Your task to perform on an android device: Show me popular videos on Youtube Image 0: 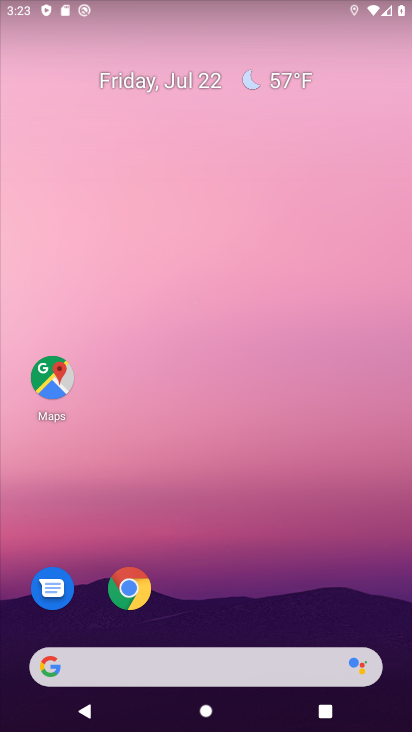
Step 0: drag from (258, 641) to (178, 40)
Your task to perform on an android device: Show me popular videos on Youtube Image 1: 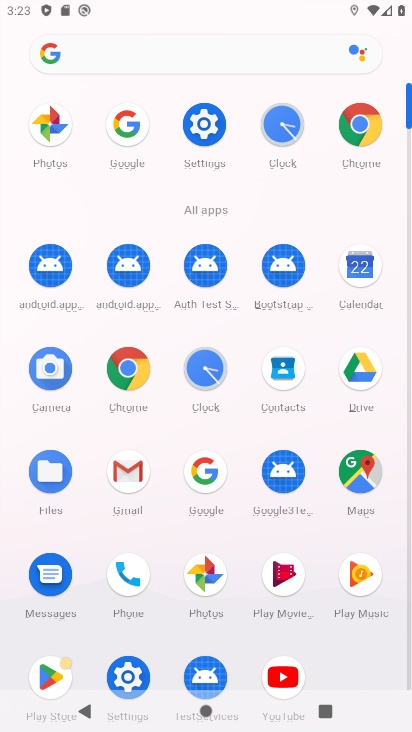
Step 1: click (258, 674)
Your task to perform on an android device: Show me popular videos on Youtube Image 2: 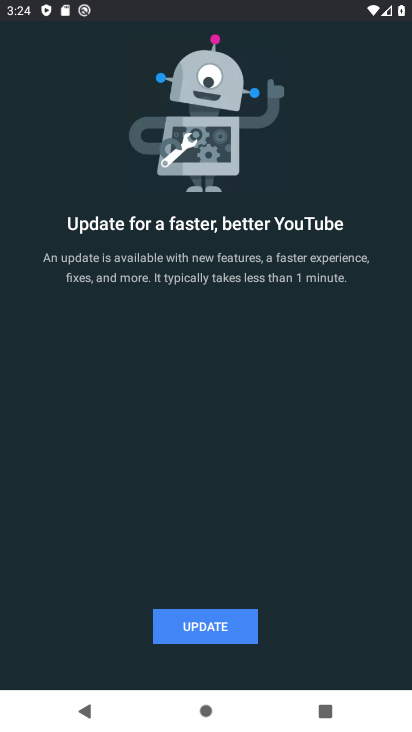
Step 2: click (217, 621)
Your task to perform on an android device: Show me popular videos on Youtube Image 3: 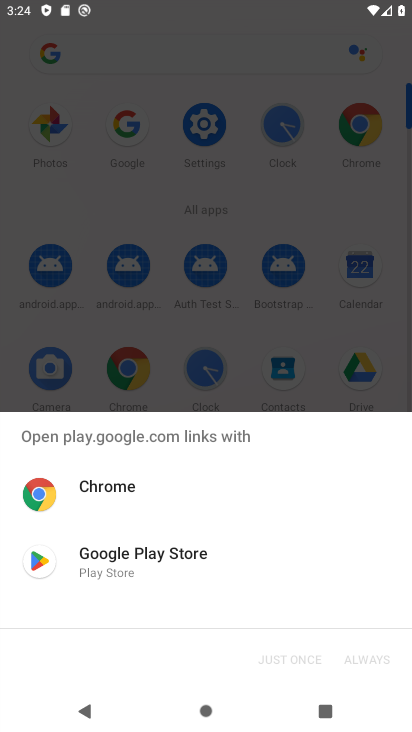
Step 3: click (192, 575)
Your task to perform on an android device: Show me popular videos on Youtube Image 4: 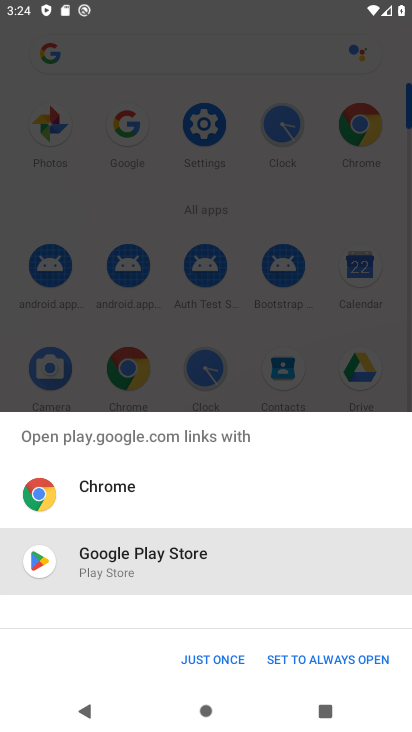
Step 4: click (214, 660)
Your task to perform on an android device: Show me popular videos on Youtube Image 5: 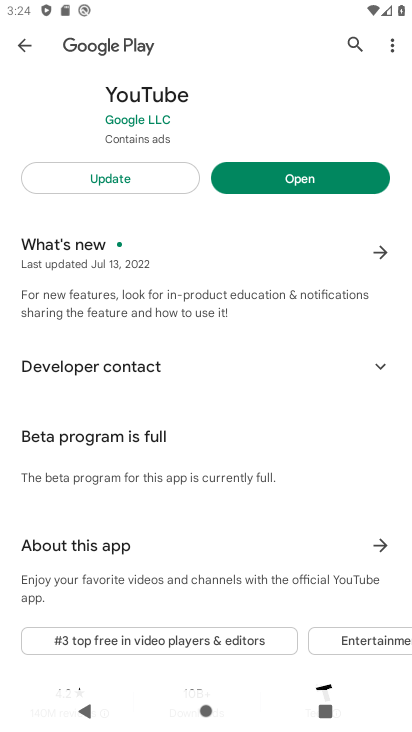
Step 5: click (154, 181)
Your task to perform on an android device: Show me popular videos on Youtube Image 6: 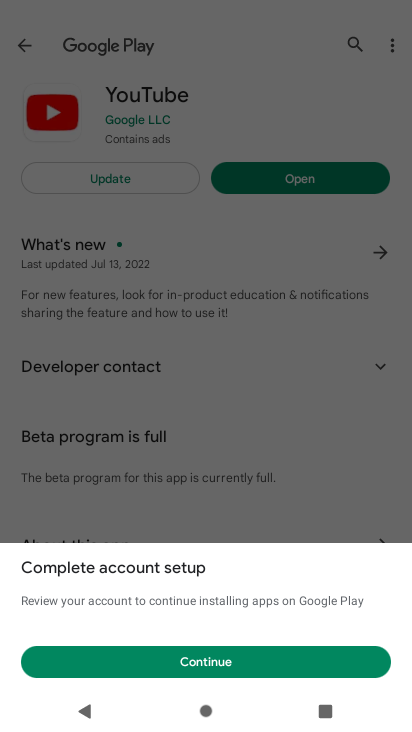
Step 6: click (201, 672)
Your task to perform on an android device: Show me popular videos on Youtube Image 7: 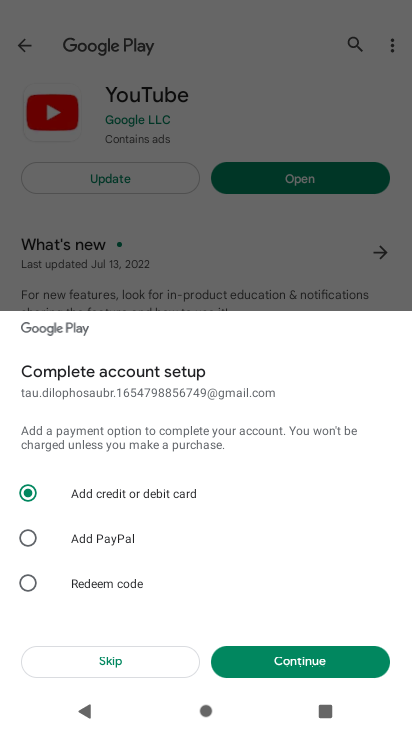
Step 7: click (97, 652)
Your task to perform on an android device: Show me popular videos on Youtube Image 8: 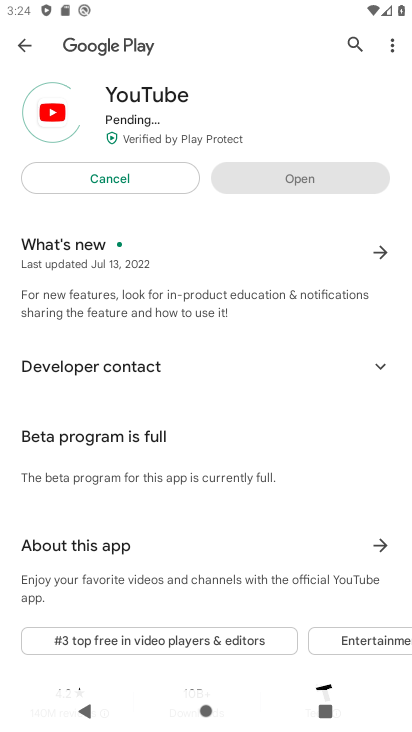
Step 8: click (134, 176)
Your task to perform on an android device: Show me popular videos on Youtube Image 9: 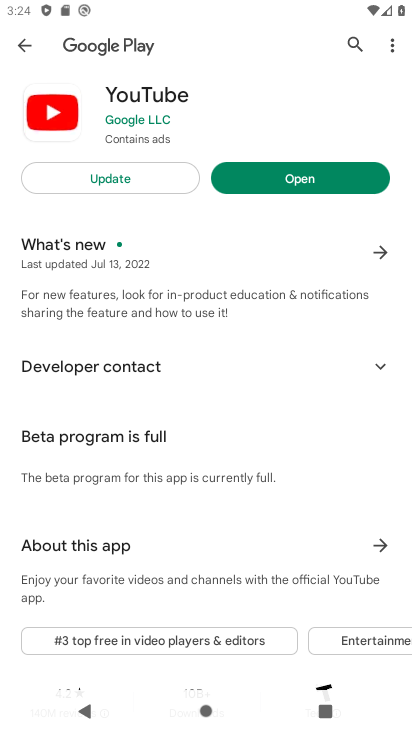
Step 9: click (134, 176)
Your task to perform on an android device: Show me popular videos on Youtube Image 10: 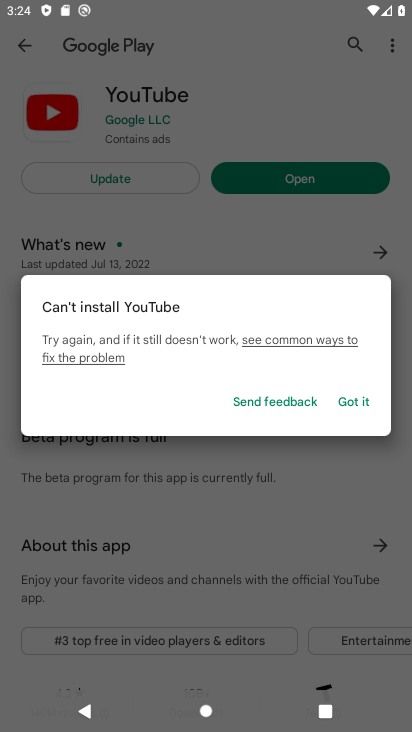
Step 10: click (366, 391)
Your task to perform on an android device: Show me popular videos on Youtube Image 11: 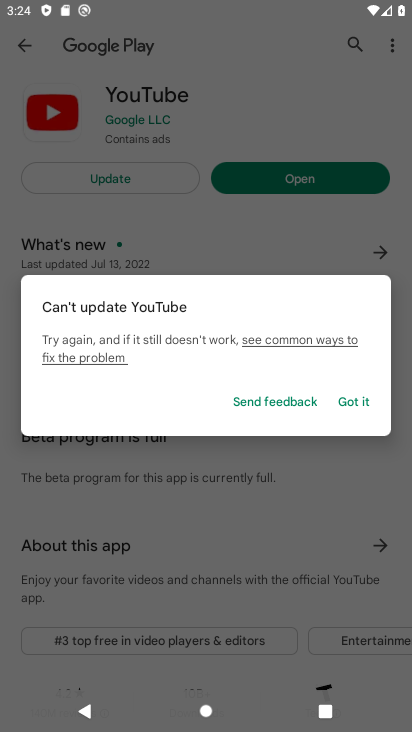
Step 11: click (363, 414)
Your task to perform on an android device: Show me popular videos on Youtube Image 12: 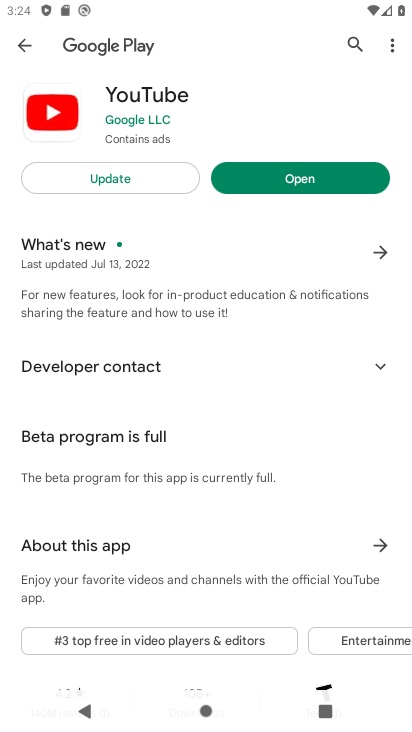
Step 12: click (144, 185)
Your task to perform on an android device: Show me popular videos on Youtube Image 13: 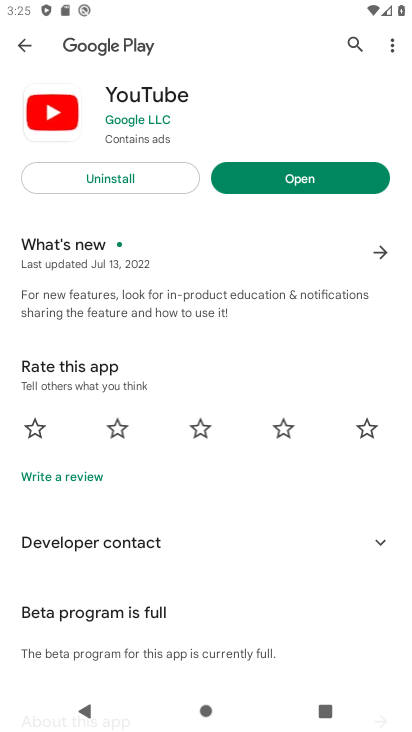
Step 13: click (285, 180)
Your task to perform on an android device: Show me popular videos on Youtube Image 14: 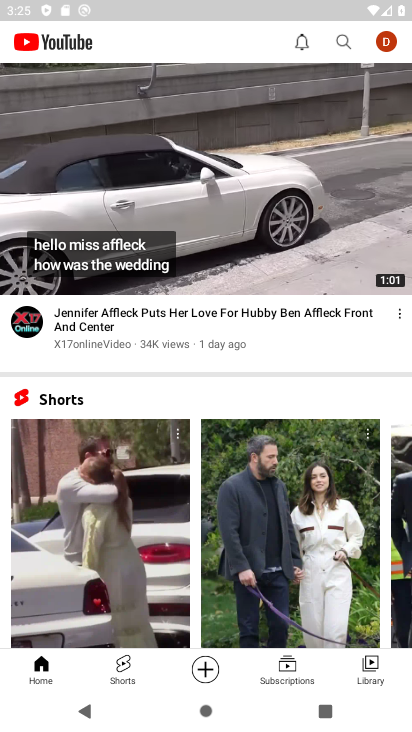
Step 14: click (362, 674)
Your task to perform on an android device: Show me popular videos on Youtube Image 15: 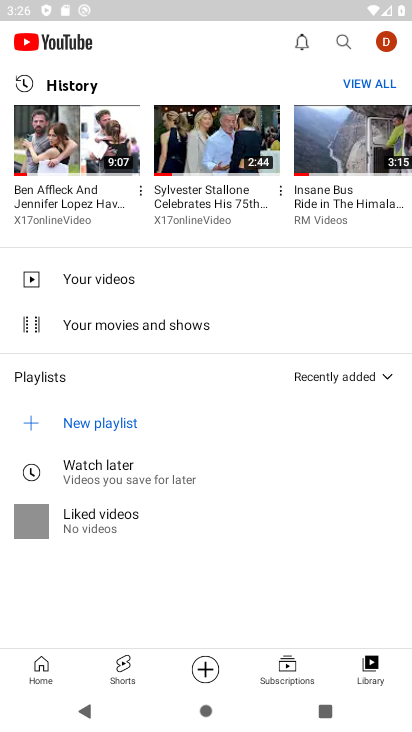
Step 15: click (72, 157)
Your task to perform on an android device: Show me popular videos on Youtube Image 16: 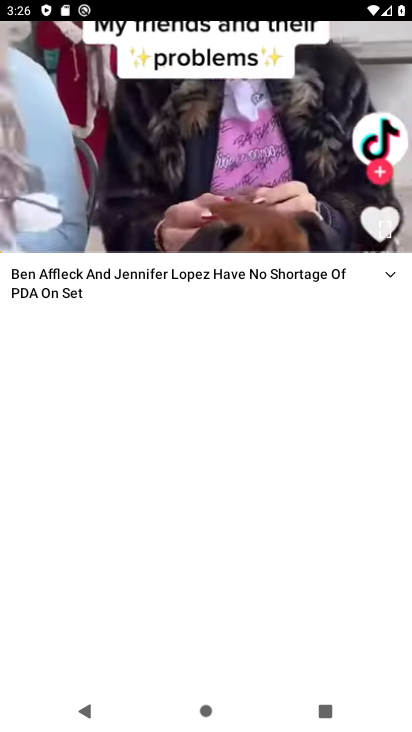
Step 16: click (222, 151)
Your task to perform on an android device: Show me popular videos on Youtube Image 17: 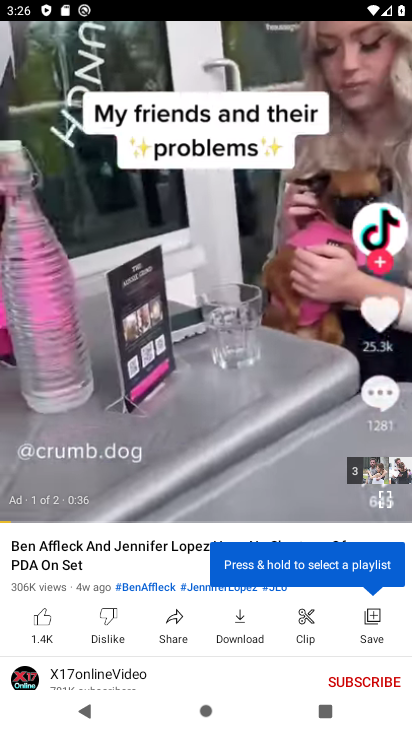
Step 17: click (218, 210)
Your task to perform on an android device: Show me popular videos on Youtube Image 18: 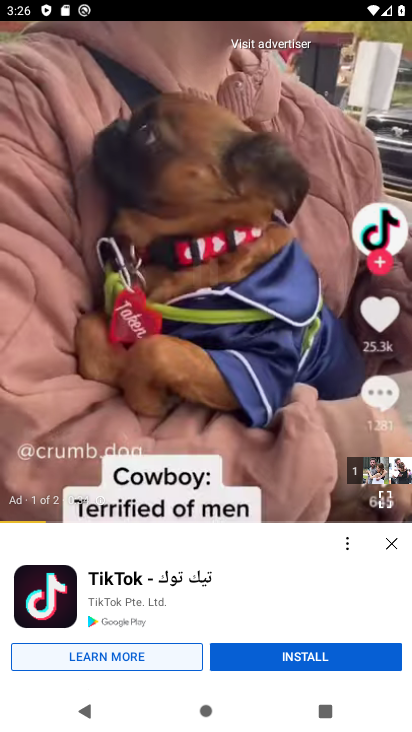
Step 18: task complete